Your task to perform on an android device: install app "Viber Messenger" Image 0: 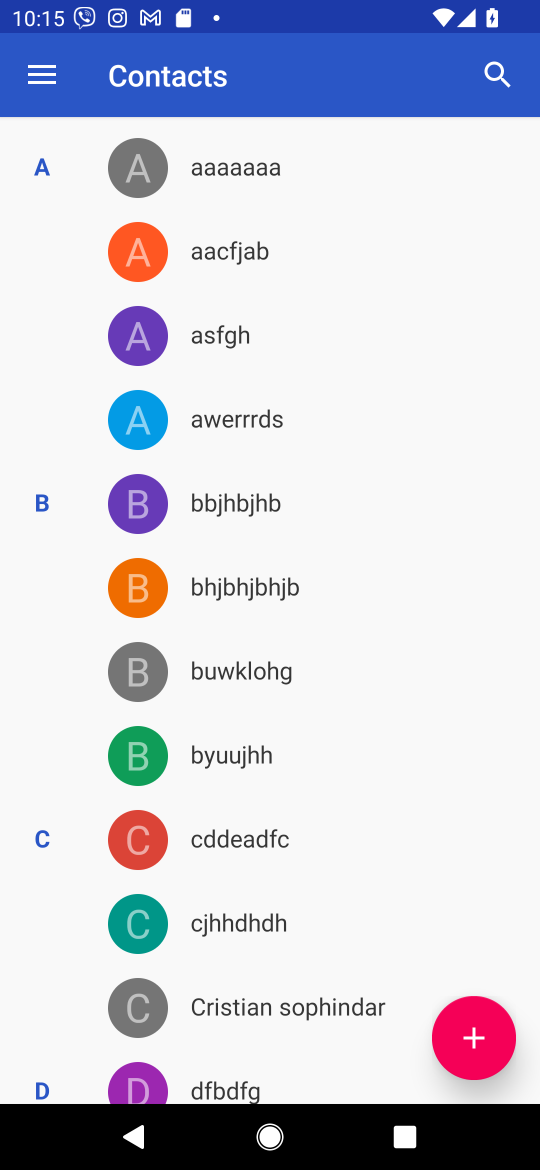
Step 0: press home button
Your task to perform on an android device: install app "Viber Messenger" Image 1: 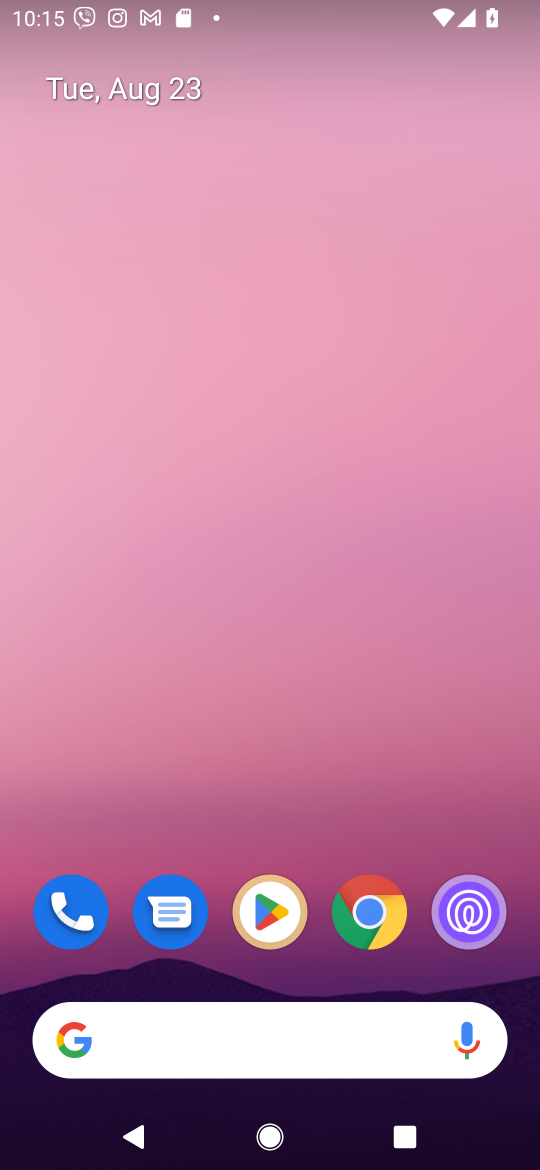
Step 1: click (273, 914)
Your task to perform on an android device: install app "Viber Messenger" Image 2: 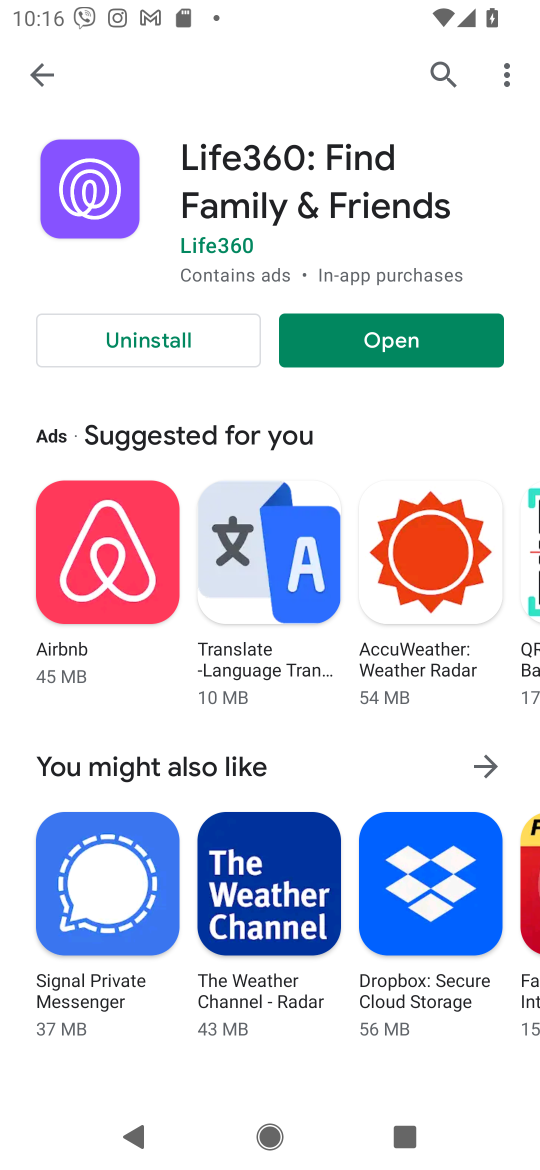
Step 2: click (443, 61)
Your task to perform on an android device: install app "Viber Messenger" Image 3: 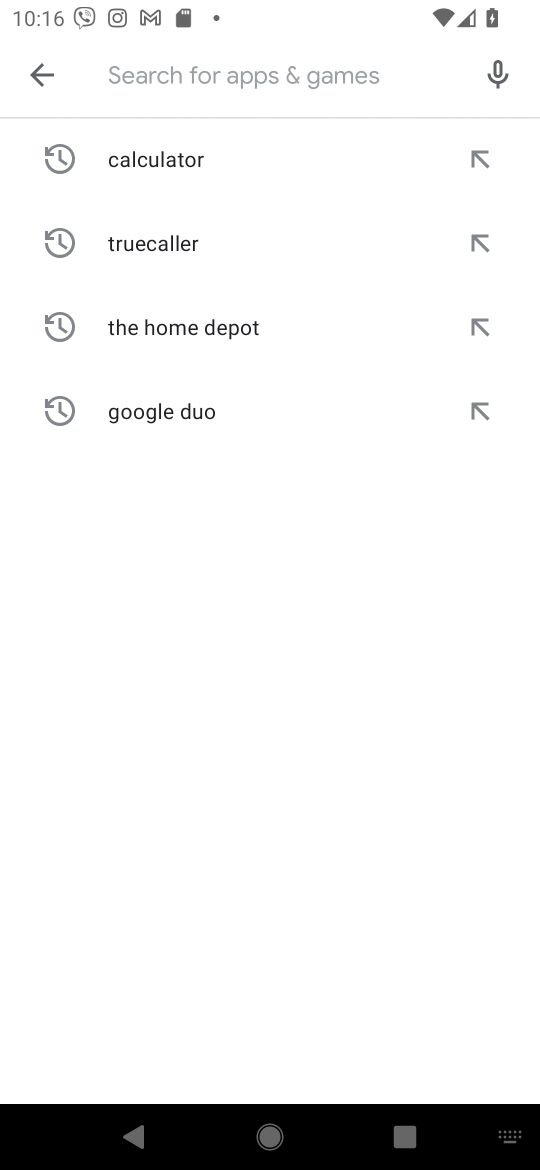
Step 3: type "Viber Messenger"
Your task to perform on an android device: install app "Viber Messenger" Image 4: 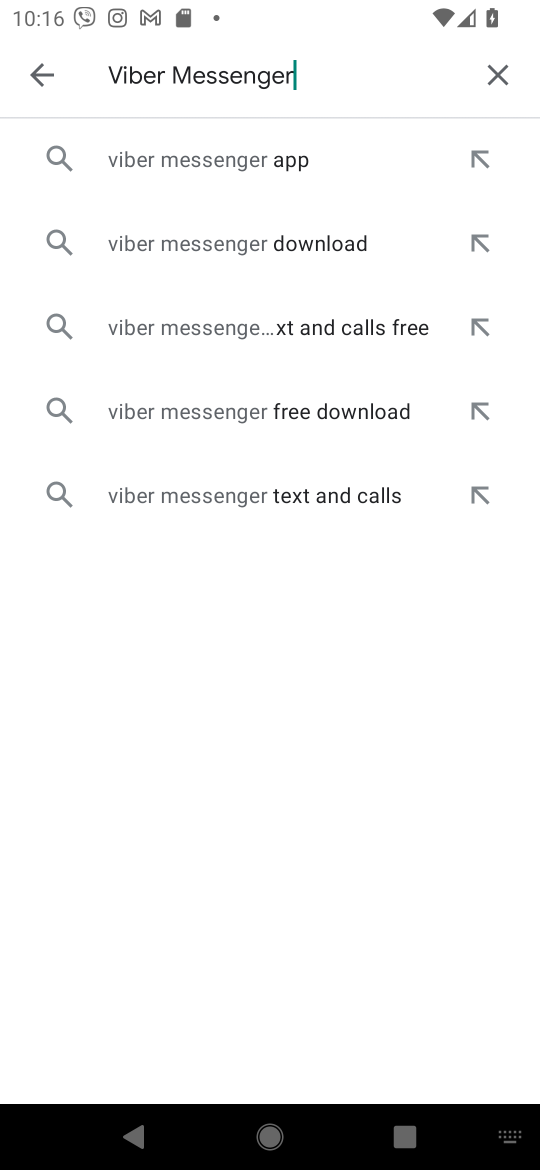
Step 4: click (259, 152)
Your task to perform on an android device: install app "Viber Messenger" Image 5: 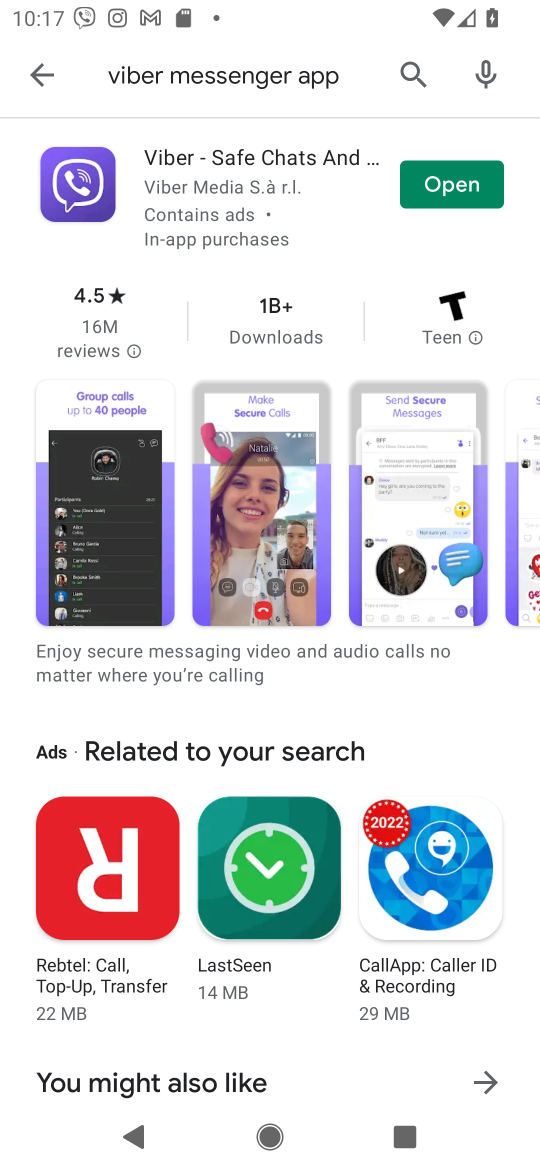
Step 5: task complete